Your task to perform on an android device: open the mobile data screen to see how much data has been used Image 0: 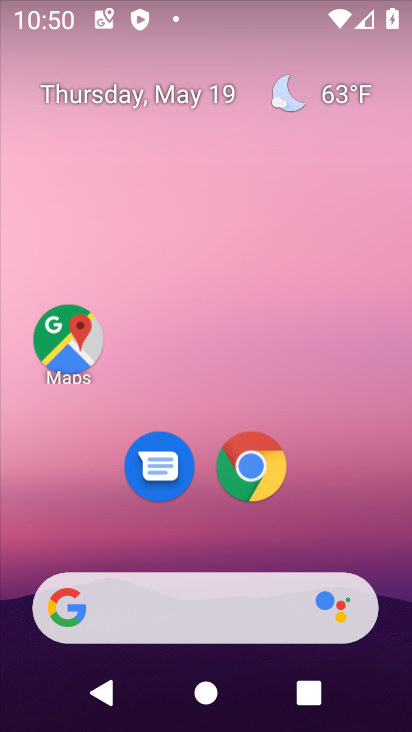
Step 0: drag from (396, 616) to (340, 99)
Your task to perform on an android device: open the mobile data screen to see how much data has been used Image 1: 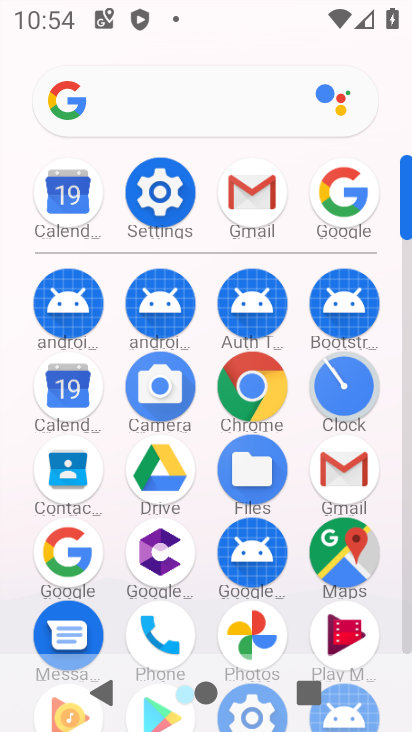
Step 1: task complete